Your task to perform on an android device: refresh tabs in the chrome app Image 0: 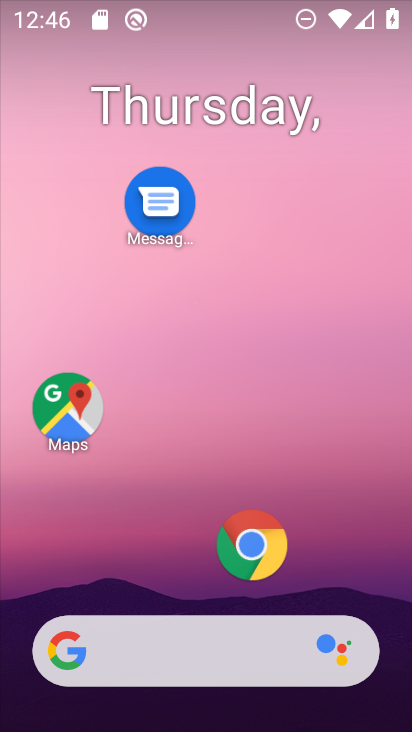
Step 0: click (224, 533)
Your task to perform on an android device: refresh tabs in the chrome app Image 1: 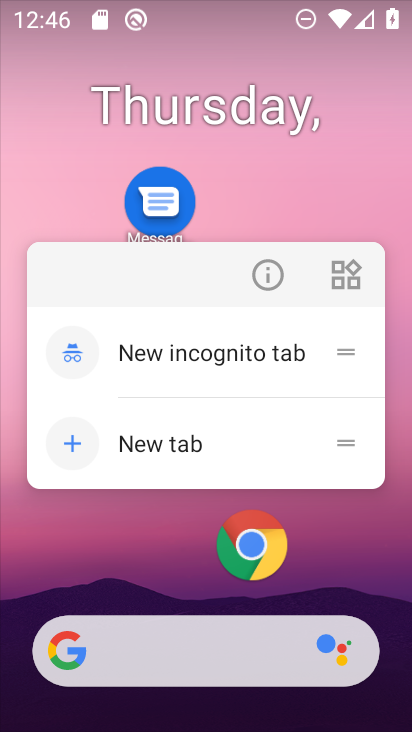
Step 1: click (230, 551)
Your task to perform on an android device: refresh tabs in the chrome app Image 2: 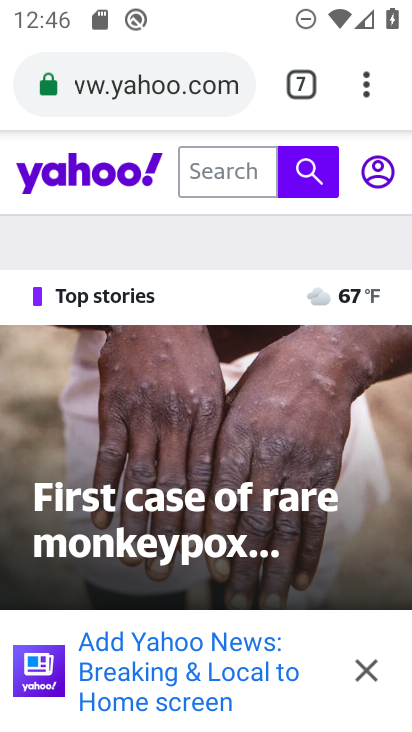
Step 2: click (363, 76)
Your task to perform on an android device: refresh tabs in the chrome app Image 3: 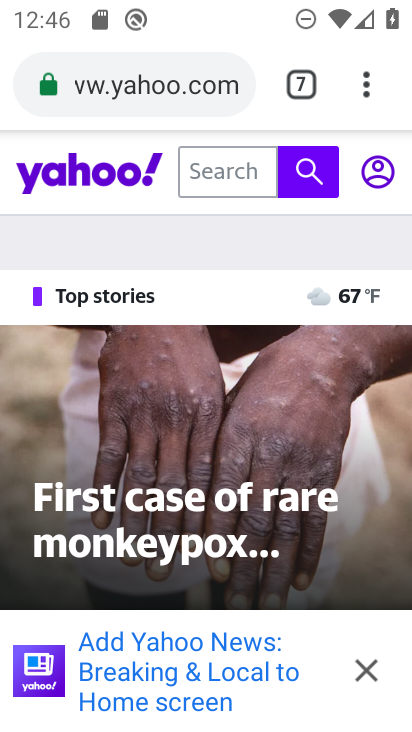
Step 3: click (353, 70)
Your task to perform on an android device: refresh tabs in the chrome app Image 4: 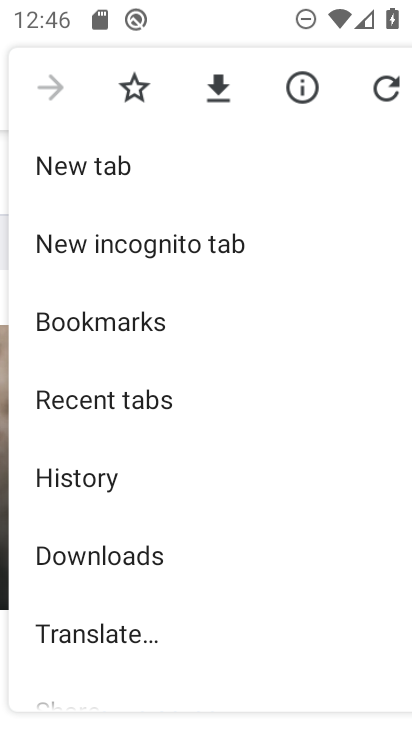
Step 4: click (385, 81)
Your task to perform on an android device: refresh tabs in the chrome app Image 5: 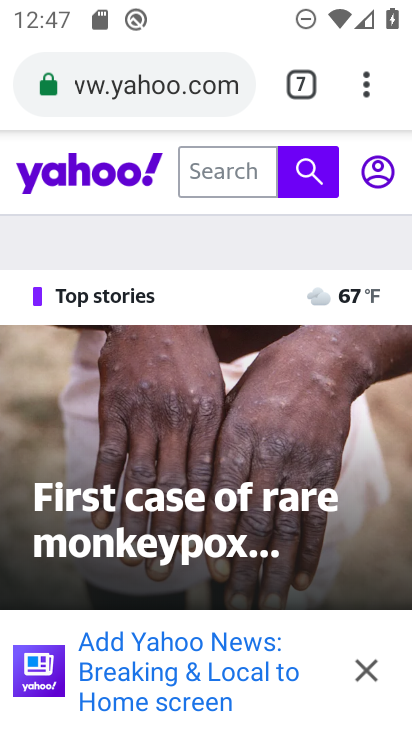
Step 5: task complete